Your task to perform on an android device: What's the weather today? Image 0: 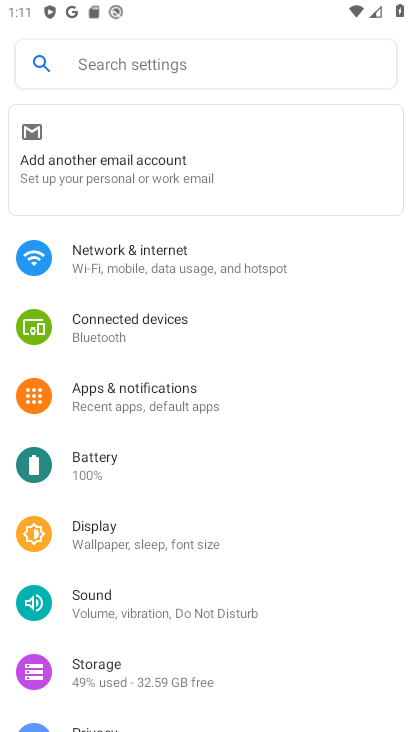
Step 0: press home button
Your task to perform on an android device: What's the weather today? Image 1: 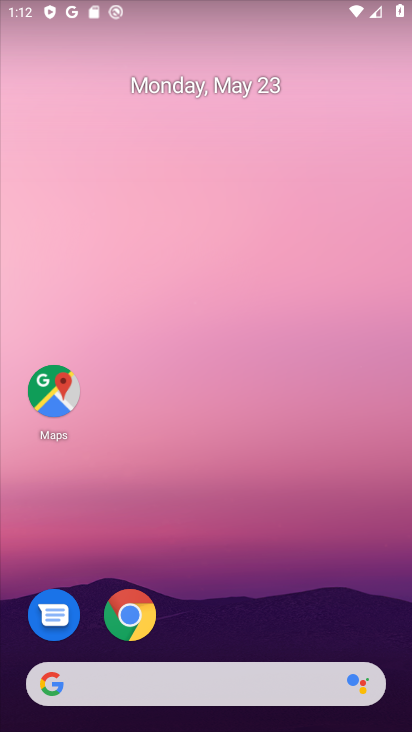
Step 1: drag from (194, 642) to (95, 82)
Your task to perform on an android device: What's the weather today? Image 2: 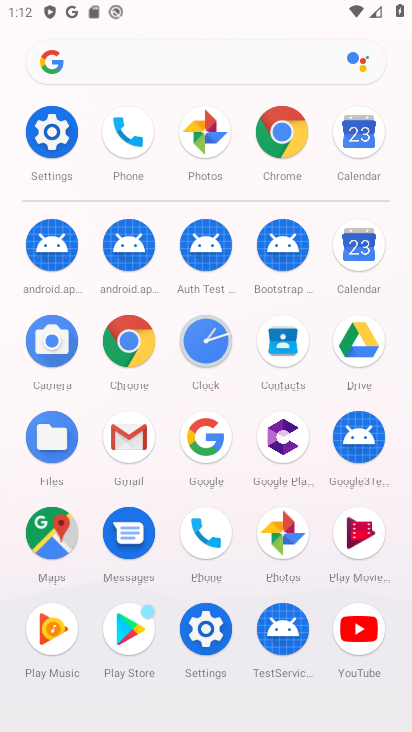
Step 2: click (201, 447)
Your task to perform on an android device: What's the weather today? Image 3: 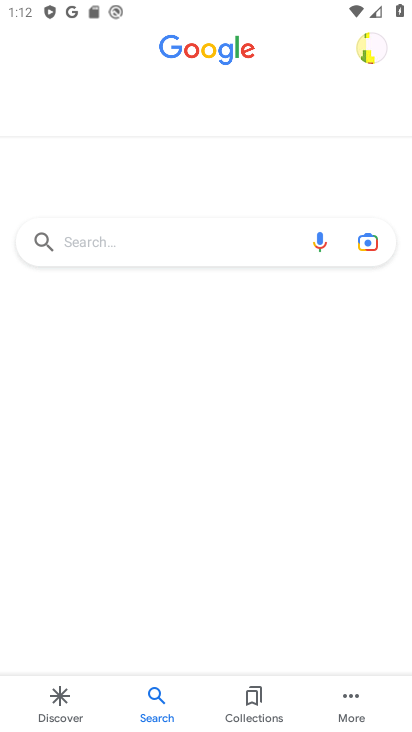
Step 3: click (182, 263)
Your task to perform on an android device: What's the weather today? Image 4: 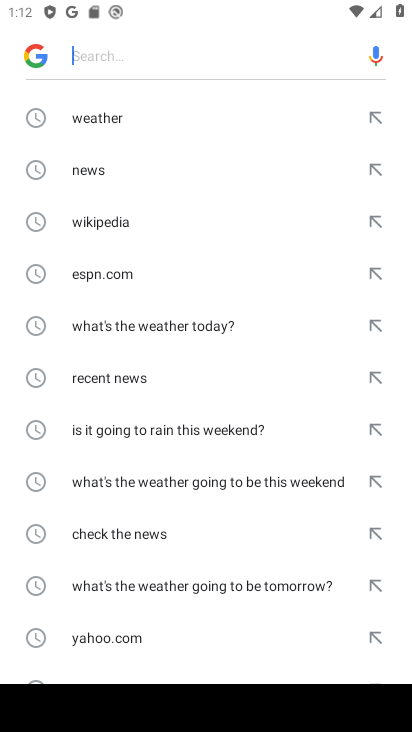
Step 4: click (114, 102)
Your task to perform on an android device: What's the weather today? Image 5: 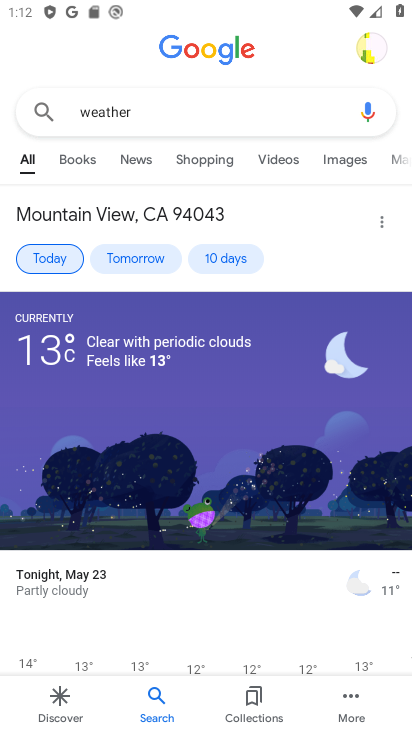
Step 5: click (49, 260)
Your task to perform on an android device: What's the weather today? Image 6: 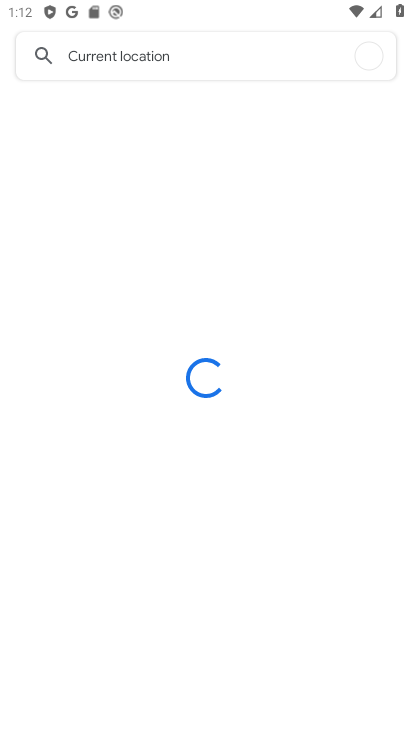
Step 6: task complete